Your task to perform on an android device: clear history in the chrome app Image 0: 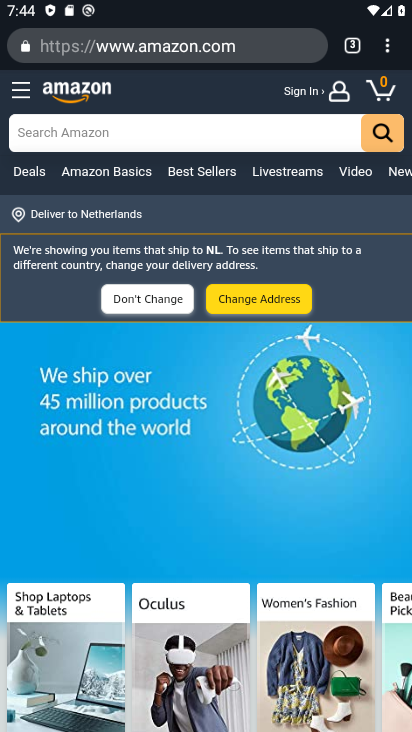
Step 0: press home button
Your task to perform on an android device: clear history in the chrome app Image 1: 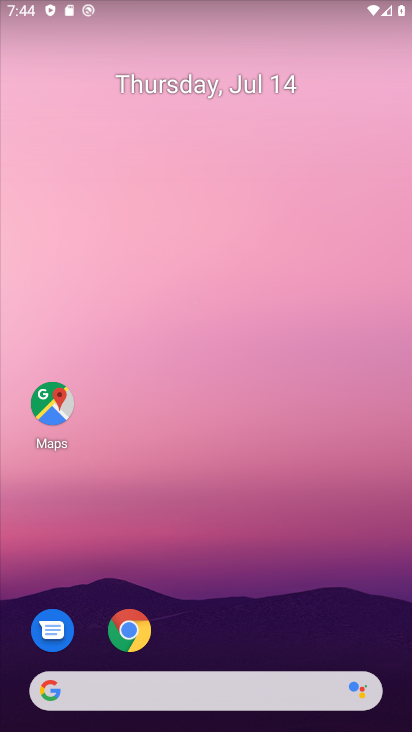
Step 1: click (130, 623)
Your task to perform on an android device: clear history in the chrome app Image 2: 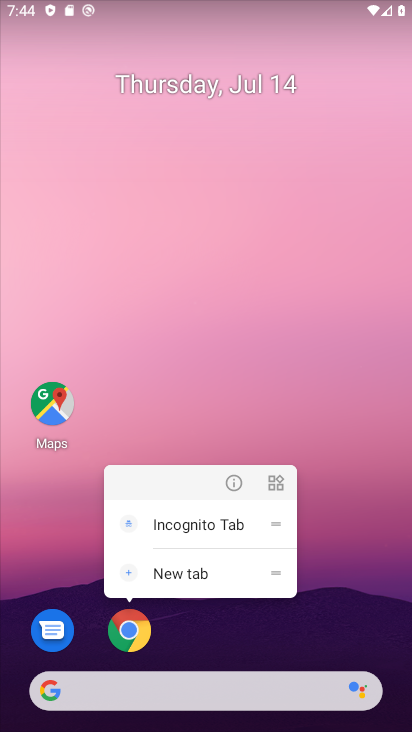
Step 2: click (123, 621)
Your task to perform on an android device: clear history in the chrome app Image 3: 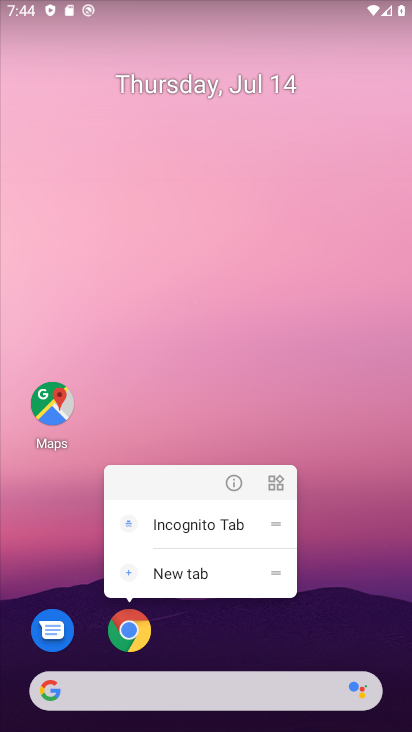
Step 3: click (123, 621)
Your task to perform on an android device: clear history in the chrome app Image 4: 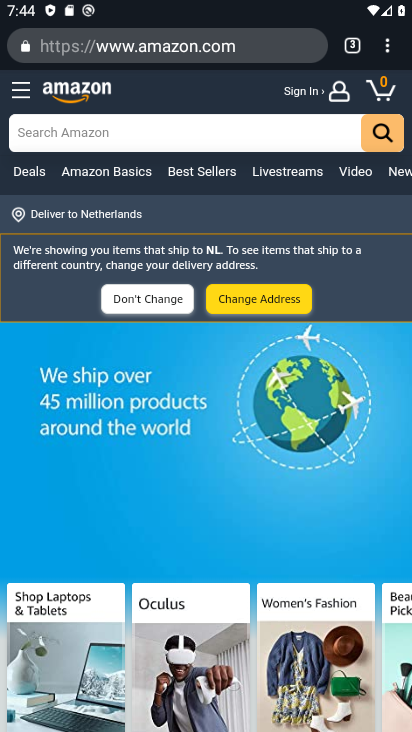
Step 4: click (390, 46)
Your task to perform on an android device: clear history in the chrome app Image 5: 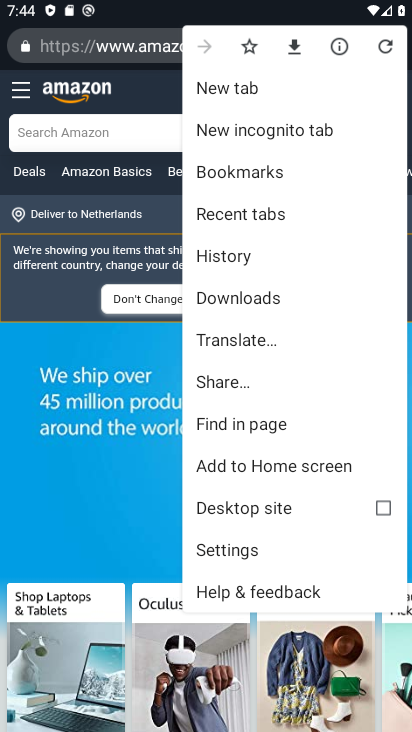
Step 5: click (235, 255)
Your task to perform on an android device: clear history in the chrome app Image 6: 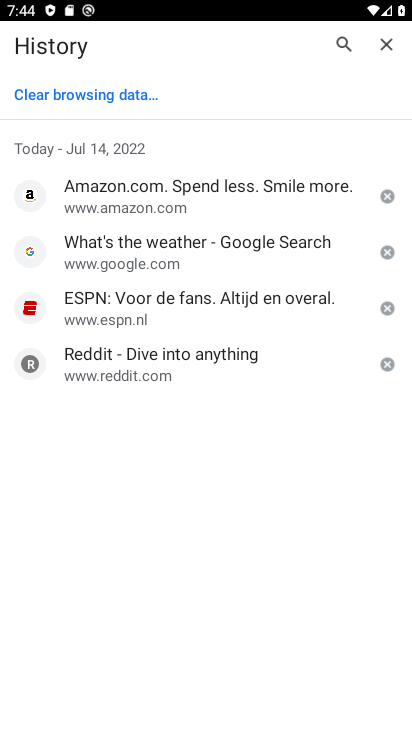
Step 6: click (108, 96)
Your task to perform on an android device: clear history in the chrome app Image 7: 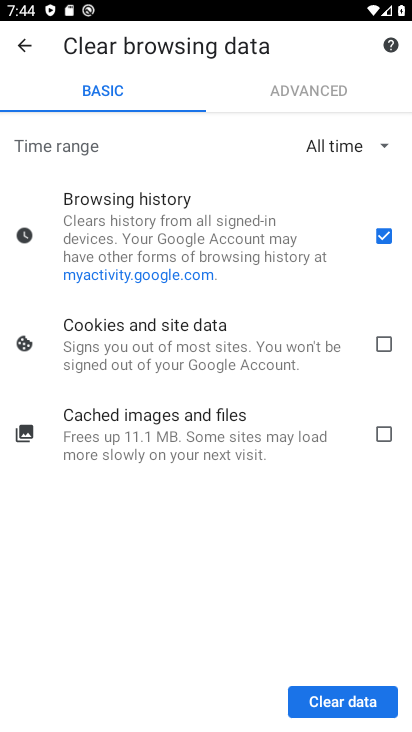
Step 7: click (346, 692)
Your task to perform on an android device: clear history in the chrome app Image 8: 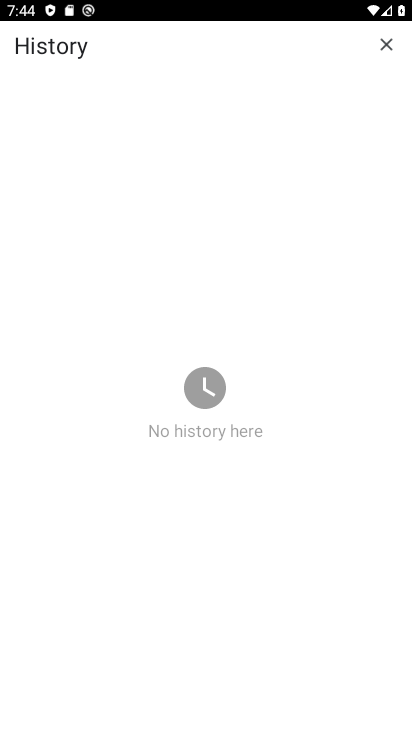
Step 8: task complete